Your task to perform on an android device: toggle wifi Image 0: 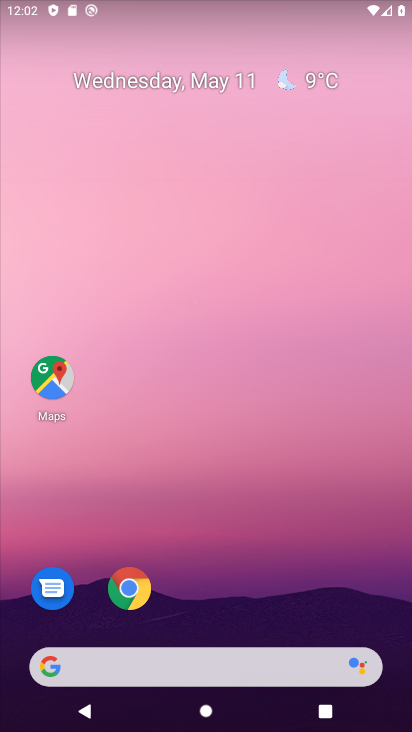
Step 0: drag from (256, 599) to (273, 9)
Your task to perform on an android device: toggle wifi Image 1: 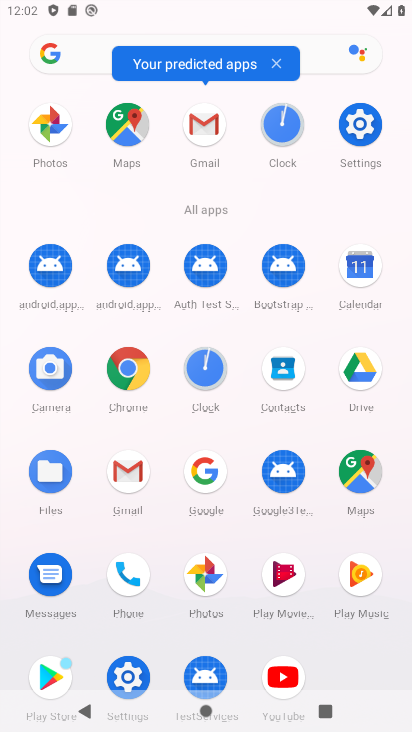
Step 1: click (350, 134)
Your task to perform on an android device: toggle wifi Image 2: 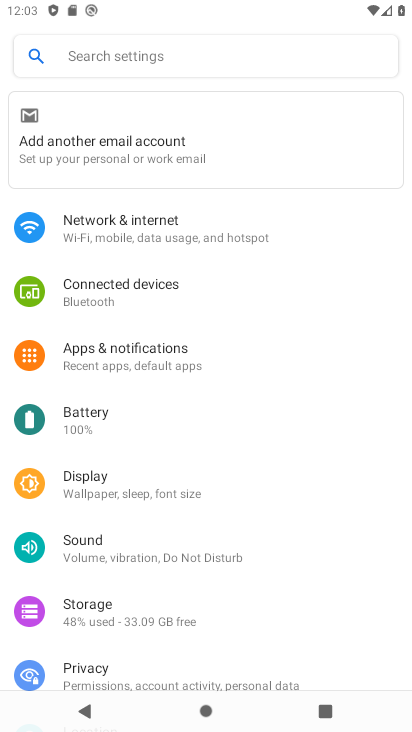
Step 2: click (108, 224)
Your task to perform on an android device: toggle wifi Image 3: 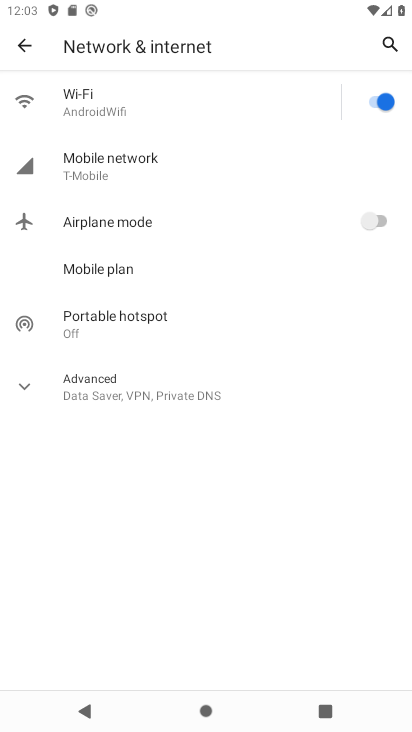
Step 3: click (389, 98)
Your task to perform on an android device: toggle wifi Image 4: 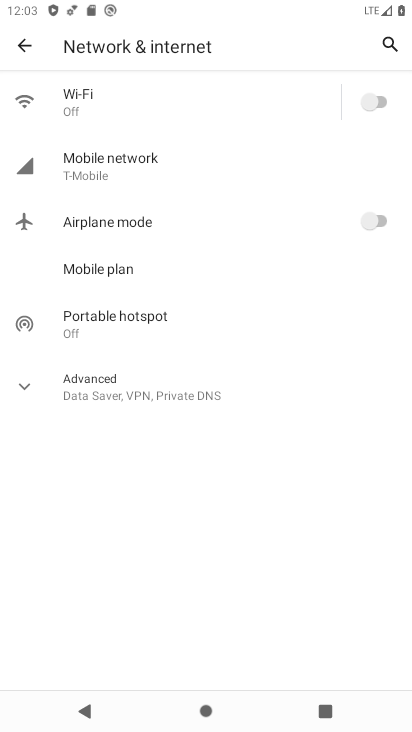
Step 4: task complete